Your task to perform on an android device: turn smart compose on in the gmail app Image 0: 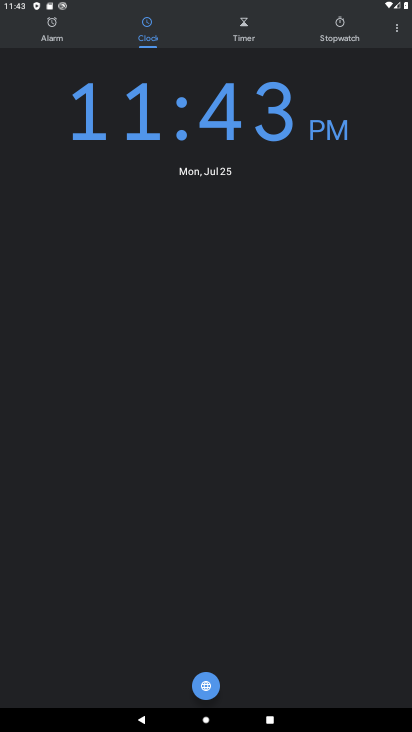
Step 0: press home button
Your task to perform on an android device: turn smart compose on in the gmail app Image 1: 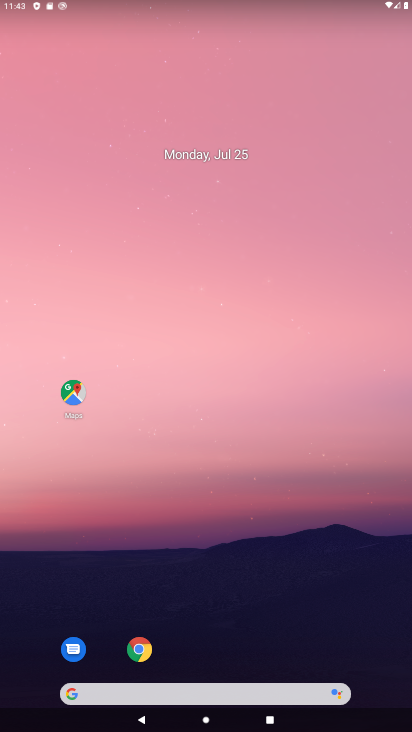
Step 1: drag from (236, 657) to (323, 543)
Your task to perform on an android device: turn smart compose on in the gmail app Image 2: 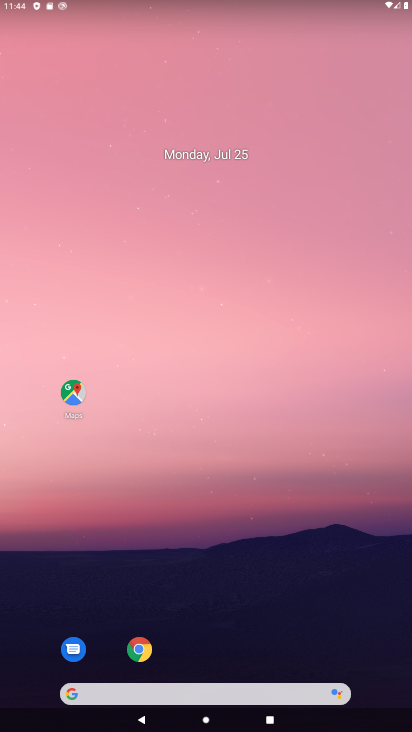
Step 2: drag from (233, 694) to (147, 74)
Your task to perform on an android device: turn smart compose on in the gmail app Image 3: 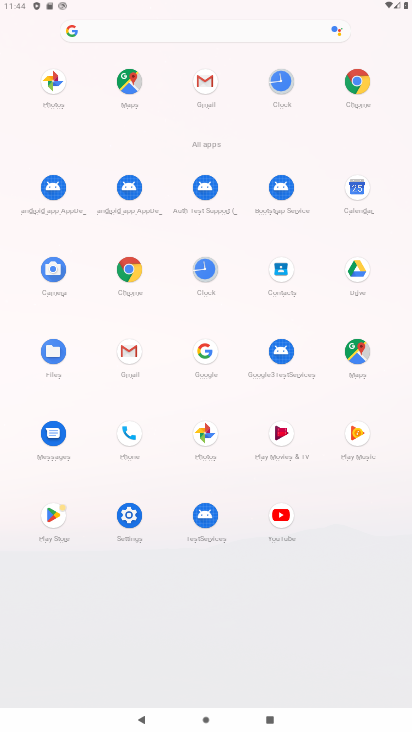
Step 3: click (114, 350)
Your task to perform on an android device: turn smart compose on in the gmail app Image 4: 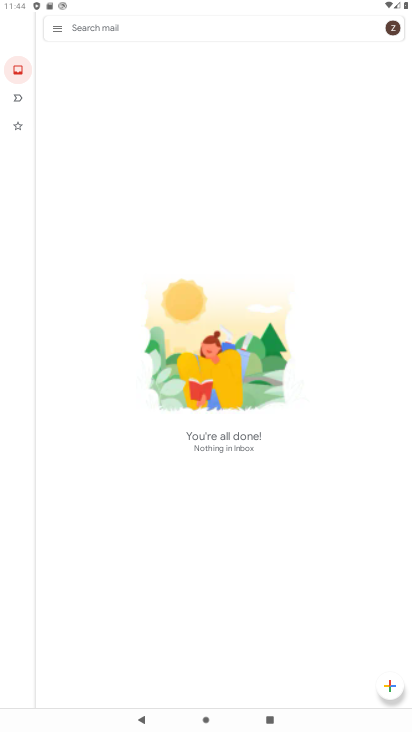
Step 4: click (55, 29)
Your task to perform on an android device: turn smart compose on in the gmail app Image 5: 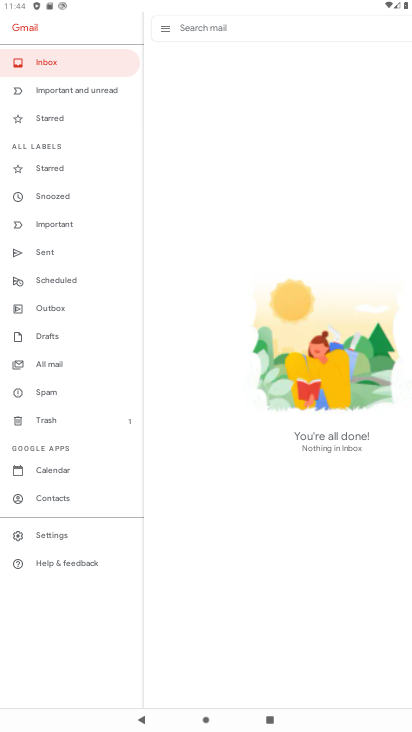
Step 5: click (35, 533)
Your task to perform on an android device: turn smart compose on in the gmail app Image 6: 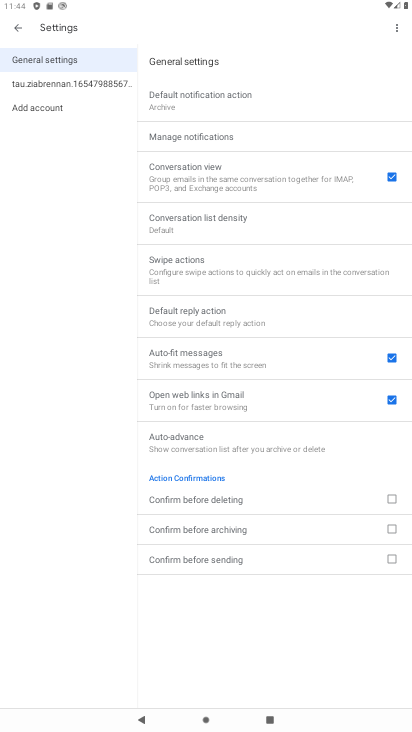
Step 6: click (36, 79)
Your task to perform on an android device: turn smart compose on in the gmail app Image 7: 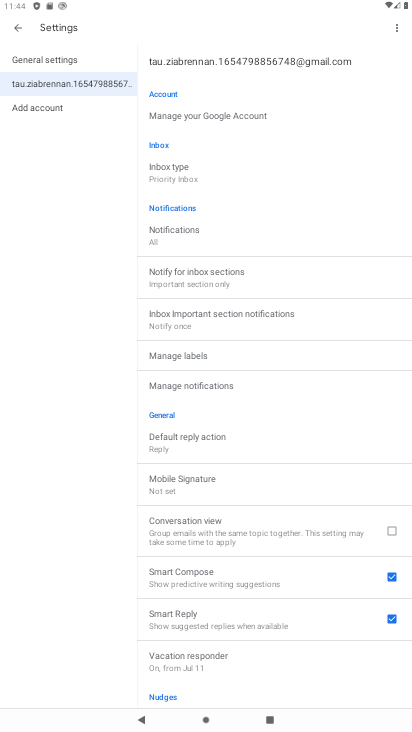
Step 7: task complete